Your task to perform on an android device: turn on bluetooth scan Image 0: 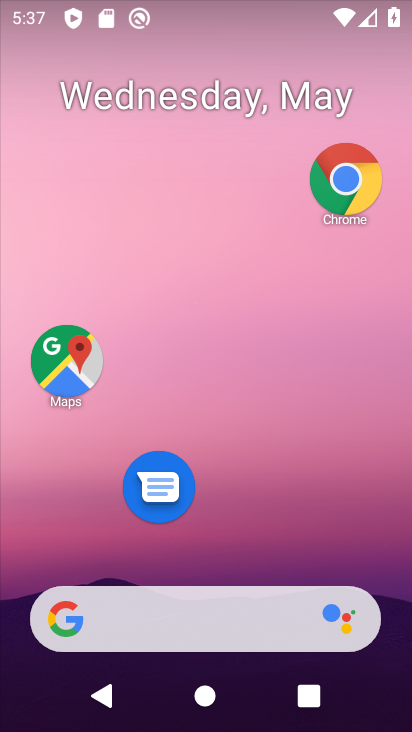
Step 0: drag from (217, 555) to (295, 117)
Your task to perform on an android device: turn on bluetooth scan Image 1: 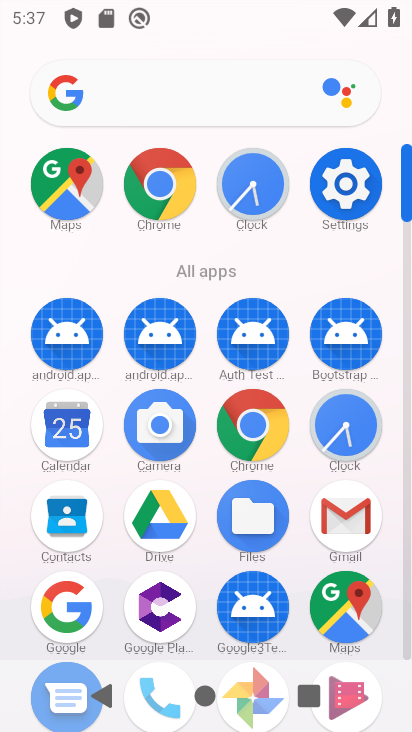
Step 1: click (348, 191)
Your task to perform on an android device: turn on bluetooth scan Image 2: 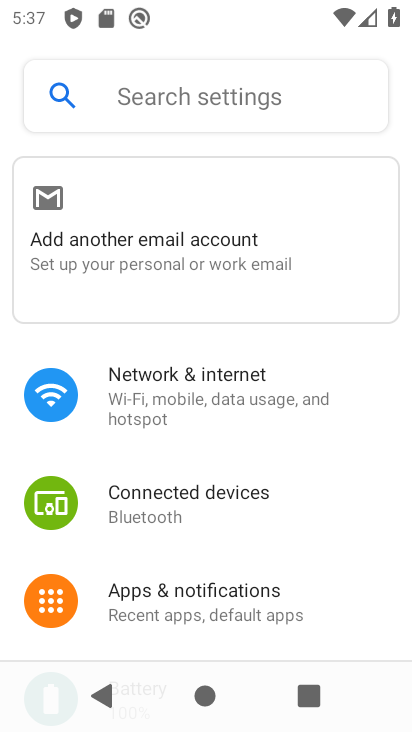
Step 2: drag from (248, 588) to (256, 67)
Your task to perform on an android device: turn on bluetooth scan Image 3: 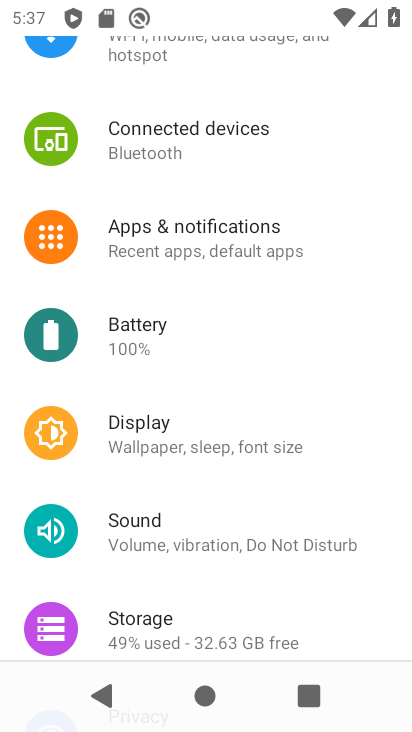
Step 3: drag from (164, 585) to (202, 173)
Your task to perform on an android device: turn on bluetooth scan Image 4: 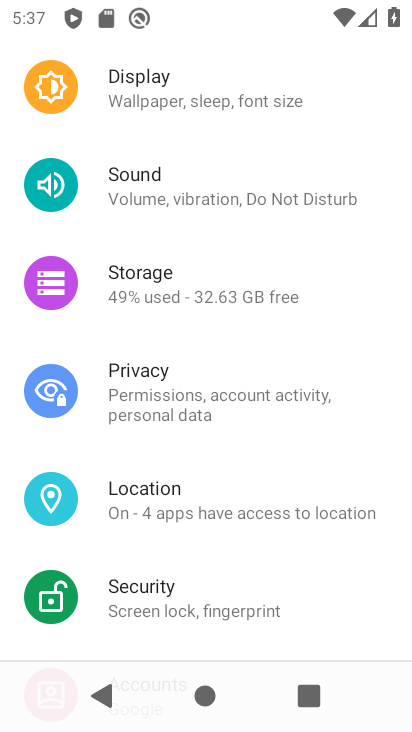
Step 4: click (151, 501)
Your task to perform on an android device: turn on bluetooth scan Image 5: 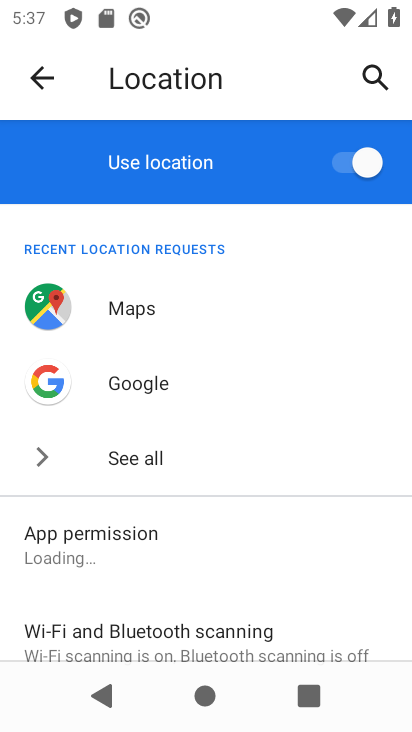
Step 5: drag from (175, 600) to (234, 293)
Your task to perform on an android device: turn on bluetooth scan Image 6: 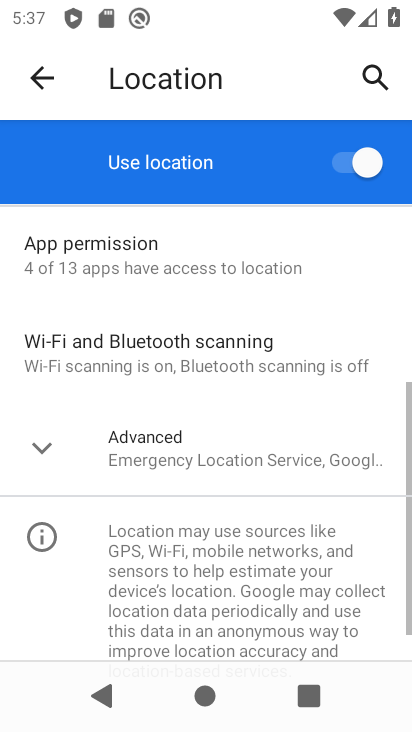
Step 6: click (159, 362)
Your task to perform on an android device: turn on bluetooth scan Image 7: 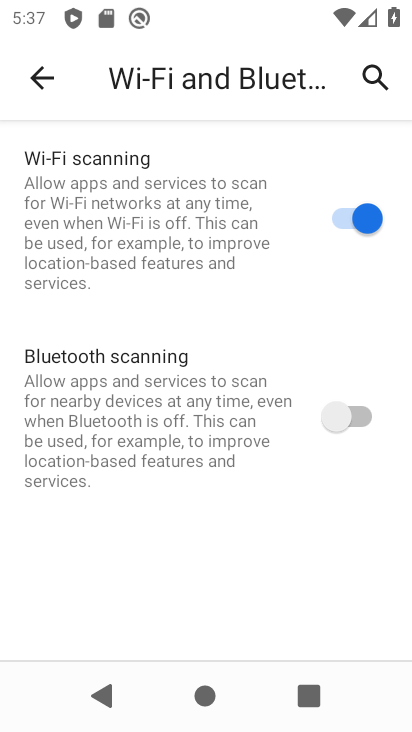
Step 7: click (365, 415)
Your task to perform on an android device: turn on bluetooth scan Image 8: 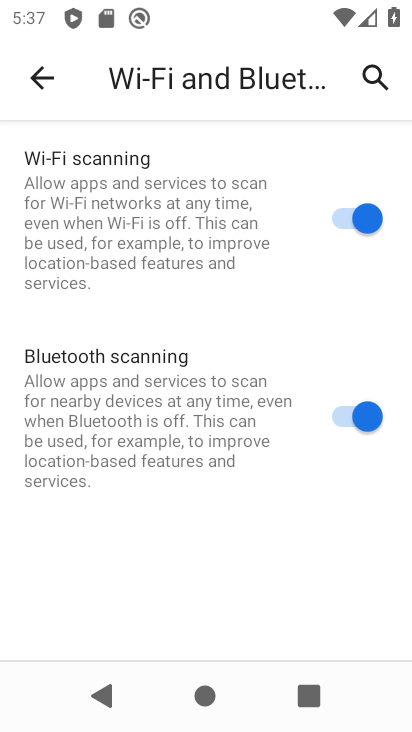
Step 8: task complete